Your task to perform on an android device: delete location history Image 0: 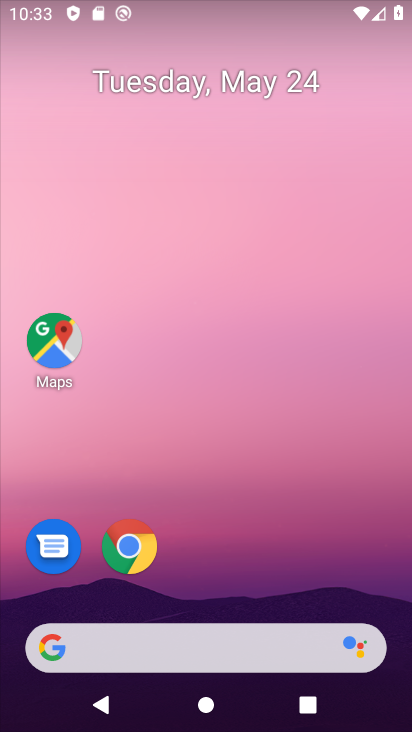
Step 0: click (47, 353)
Your task to perform on an android device: delete location history Image 1: 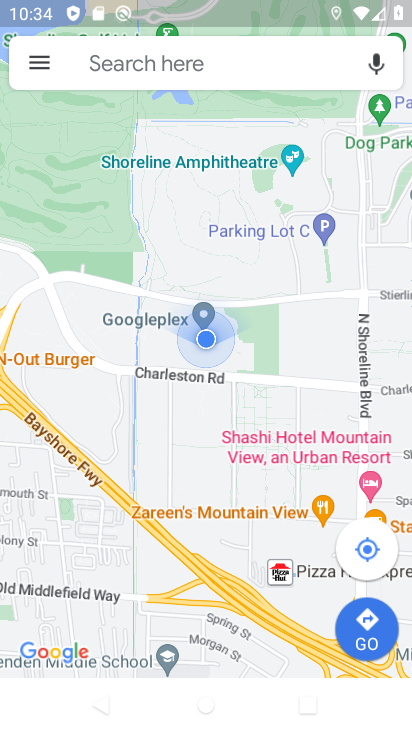
Step 1: click (45, 59)
Your task to perform on an android device: delete location history Image 2: 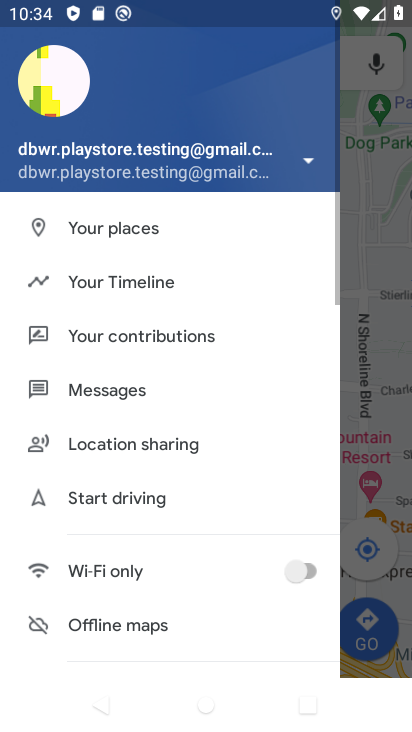
Step 2: click (140, 281)
Your task to perform on an android device: delete location history Image 3: 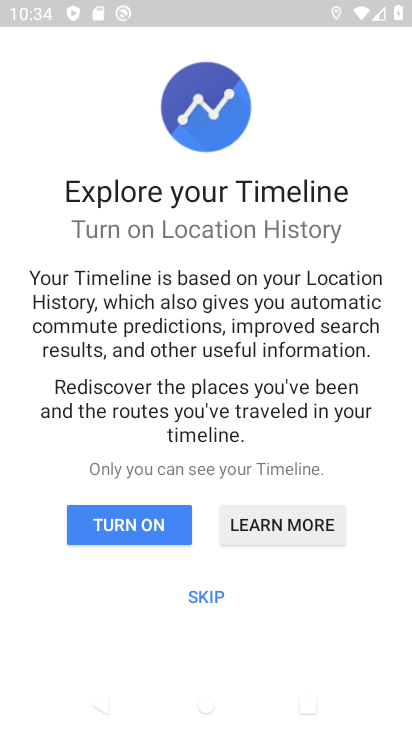
Step 3: click (200, 581)
Your task to perform on an android device: delete location history Image 4: 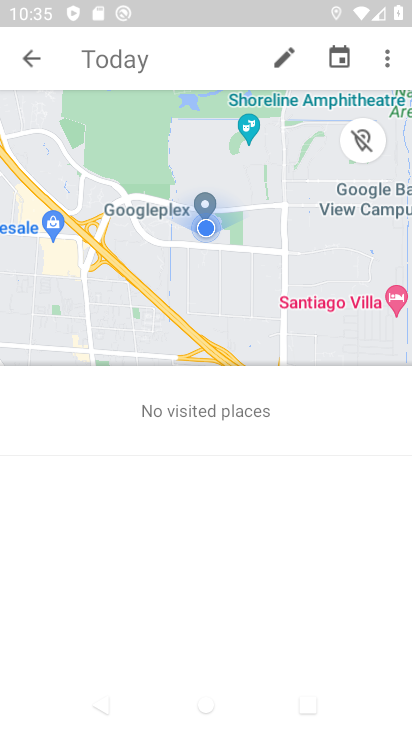
Step 4: click (396, 59)
Your task to perform on an android device: delete location history Image 5: 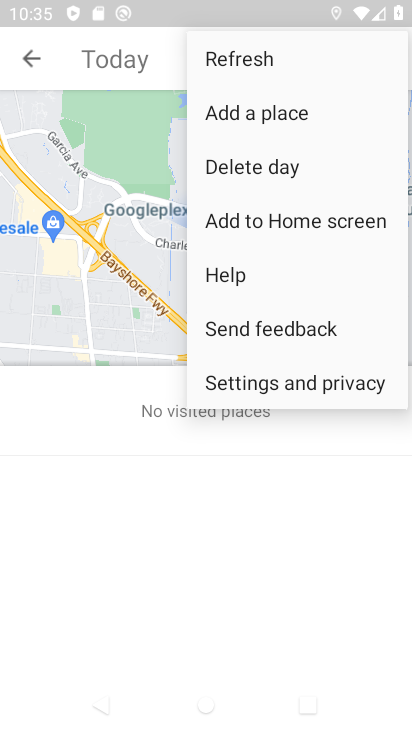
Step 5: click (281, 171)
Your task to perform on an android device: delete location history Image 6: 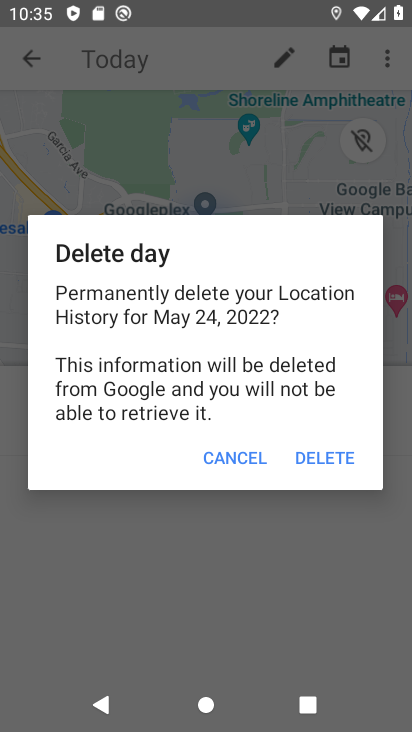
Step 6: click (328, 453)
Your task to perform on an android device: delete location history Image 7: 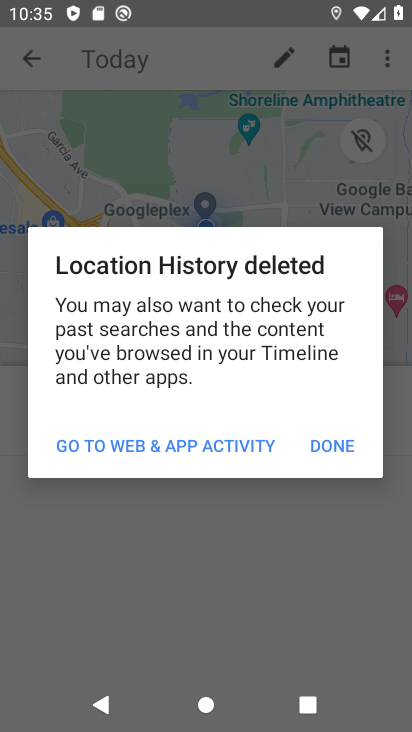
Step 7: click (318, 449)
Your task to perform on an android device: delete location history Image 8: 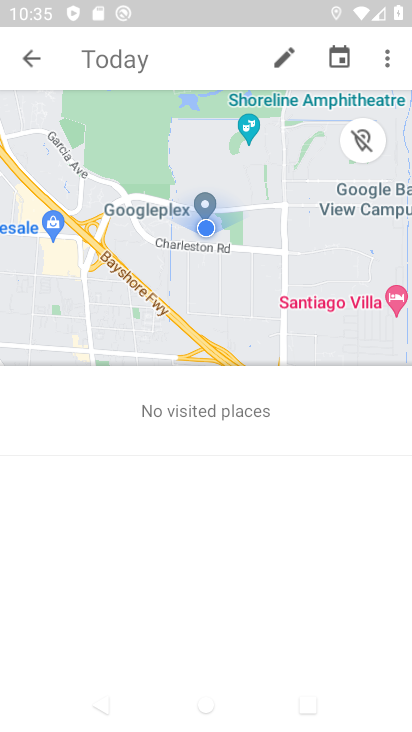
Step 8: task complete